Your task to perform on an android device: turn on location history Image 0: 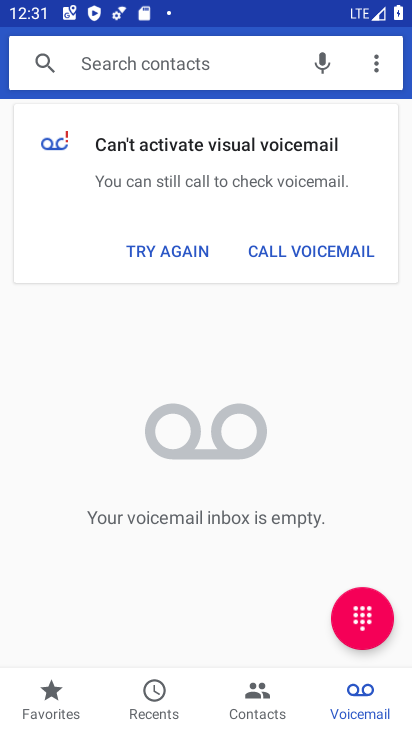
Step 0: press home button
Your task to perform on an android device: turn on location history Image 1: 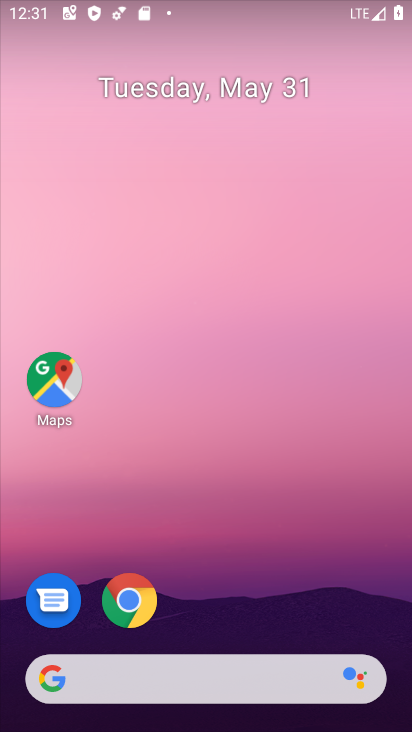
Step 1: drag from (220, 723) to (215, 30)
Your task to perform on an android device: turn on location history Image 2: 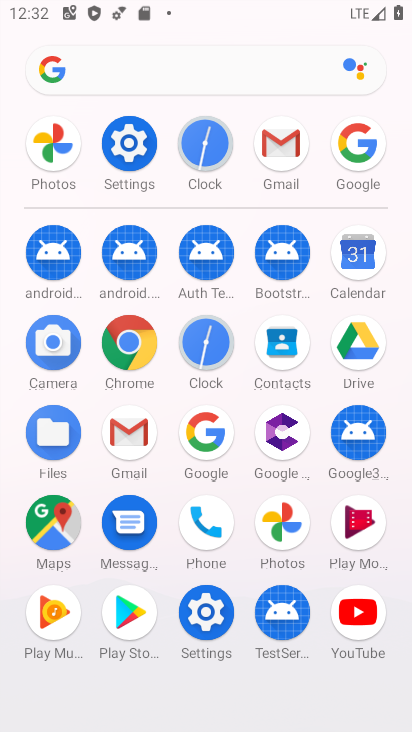
Step 2: click (126, 140)
Your task to perform on an android device: turn on location history Image 3: 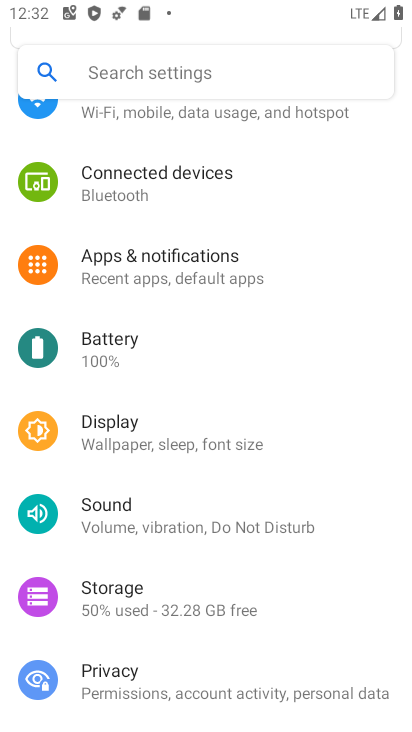
Step 3: drag from (123, 635) to (92, 211)
Your task to perform on an android device: turn on location history Image 4: 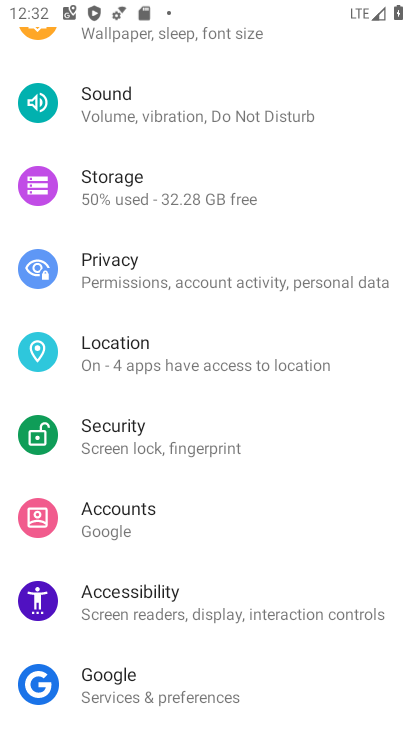
Step 4: click (106, 355)
Your task to perform on an android device: turn on location history Image 5: 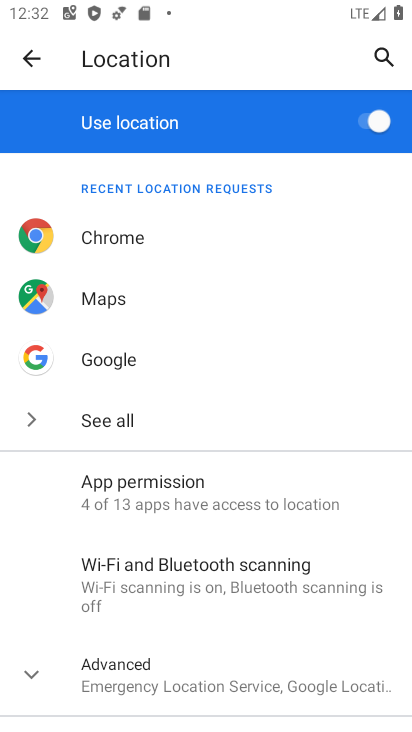
Step 5: click (132, 672)
Your task to perform on an android device: turn on location history Image 6: 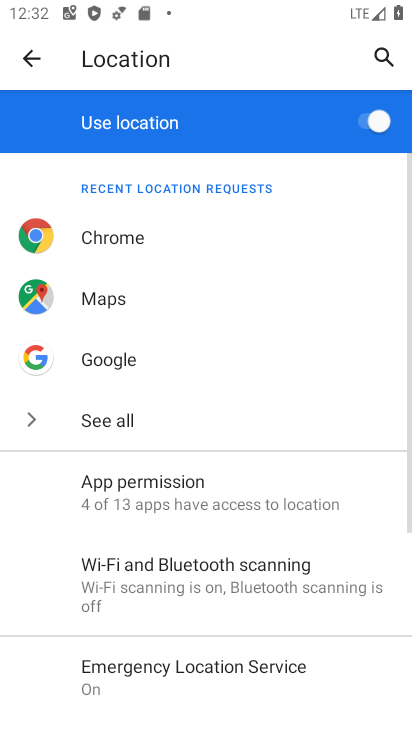
Step 6: drag from (185, 716) to (182, 287)
Your task to perform on an android device: turn on location history Image 7: 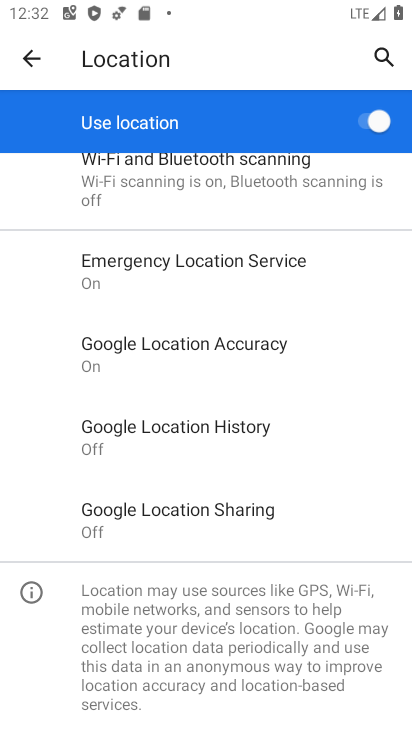
Step 7: click (191, 428)
Your task to perform on an android device: turn on location history Image 8: 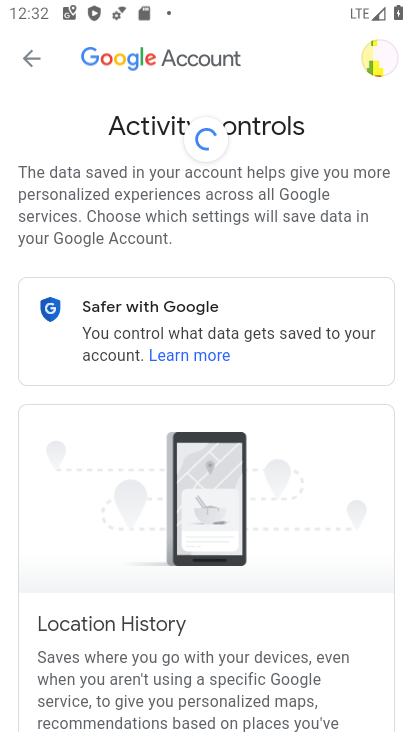
Step 8: drag from (243, 711) to (248, 203)
Your task to perform on an android device: turn on location history Image 9: 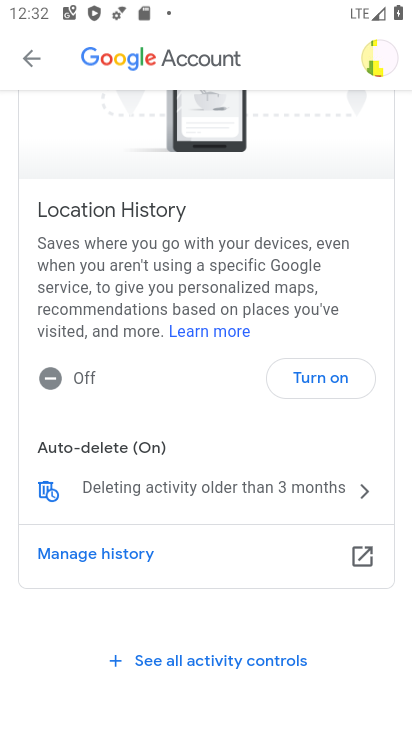
Step 9: click (323, 370)
Your task to perform on an android device: turn on location history Image 10: 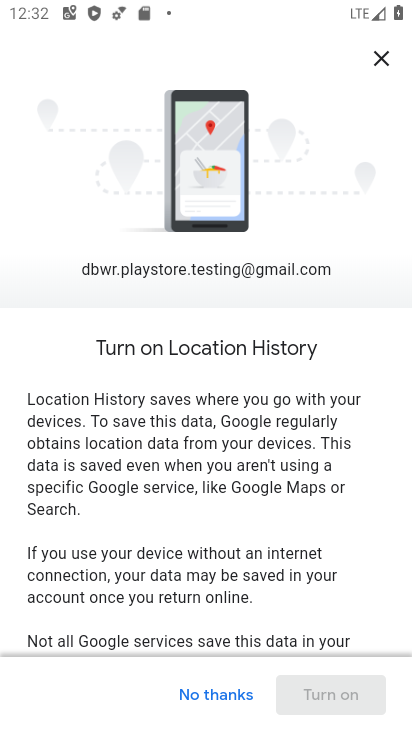
Step 10: drag from (251, 636) to (243, 227)
Your task to perform on an android device: turn on location history Image 11: 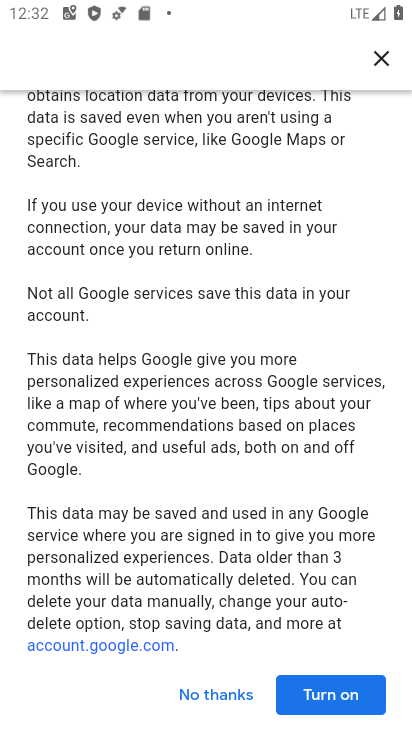
Step 11: drag from (265, 631) to (265, 299)
Your task to perform on an android device: turn on location history Image 12: 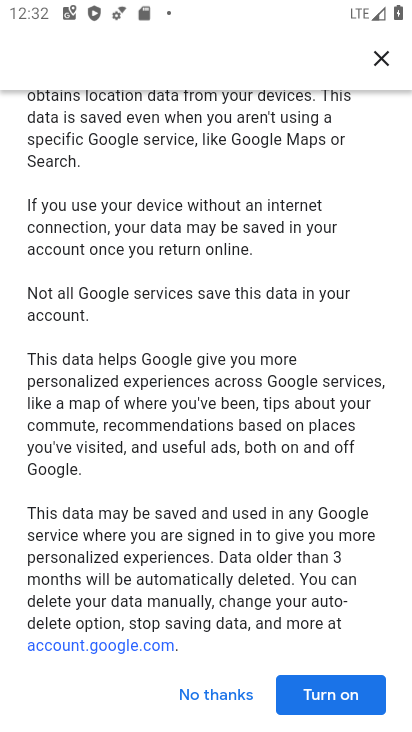
Step 12: click (319, 693)
Your task to perform on an android device: turn on location history Image 13: 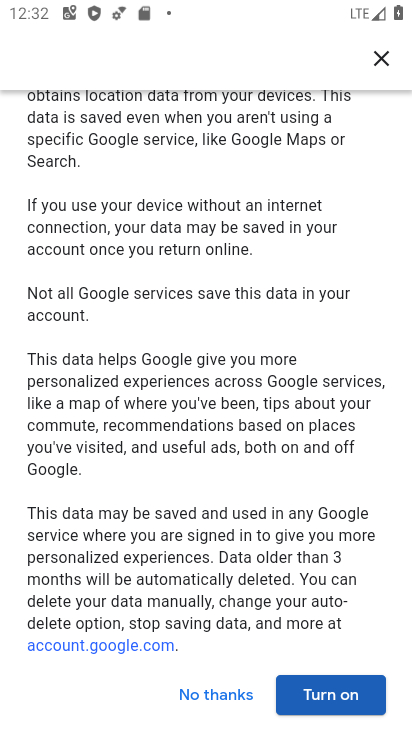
Step 13: click (331, 693)
Your task to perform on an android device: turn on location history Image 14: 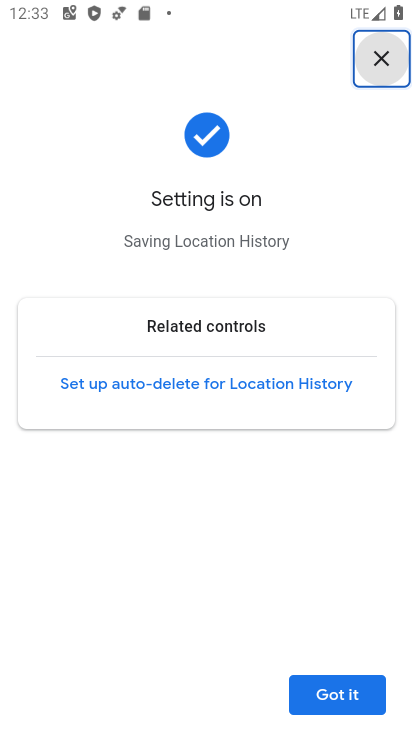
Step 14: task complete